Your task to perform on an android device: see creations saved in the google photos Image 0: 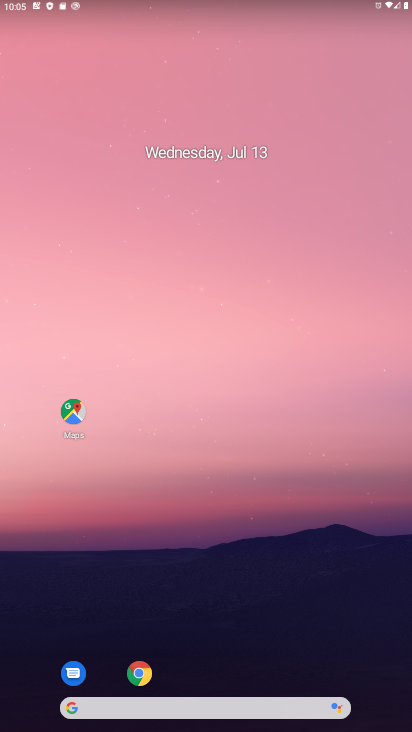
Step 0: drag from (236, 674) to (186, 42)
Your task to perform on an android device: see creations saved in the google photos Image 1: 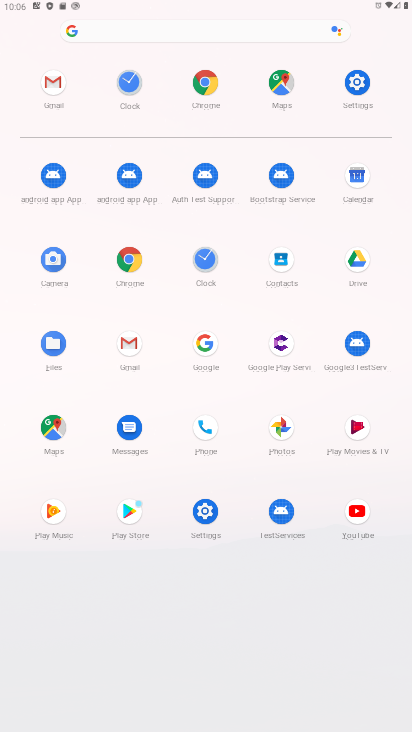
Step 1: click (289, 419)
Your task to perform on an android device: see creations saved in the google photos Image 2: 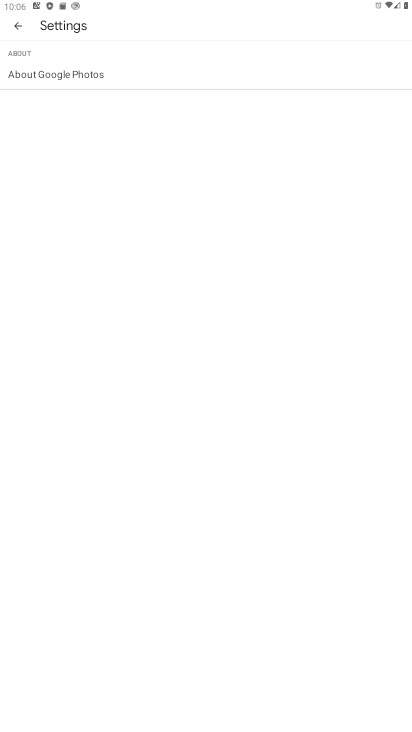
Step 2: click (16, 21)
Your task to perform on an android device: see creations saved in the google photos Image 3: 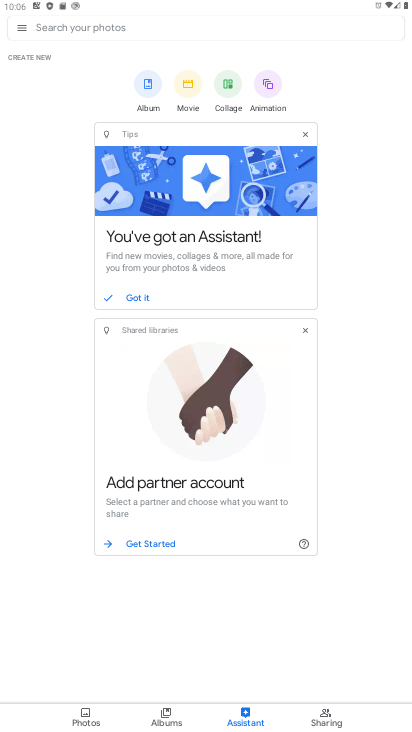
Step 3: click (137, 291)
Your task to perform on an android device: see creations saved in the google photos Image 4: 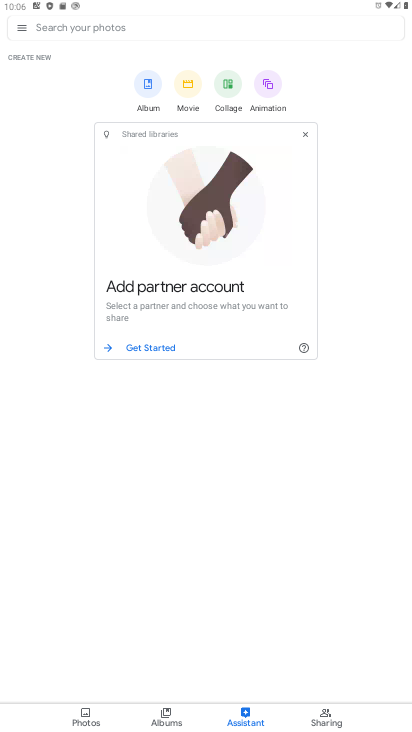
Step 4: task complete